Your task to perform on an android device: What's on my calendar today? Image 0: 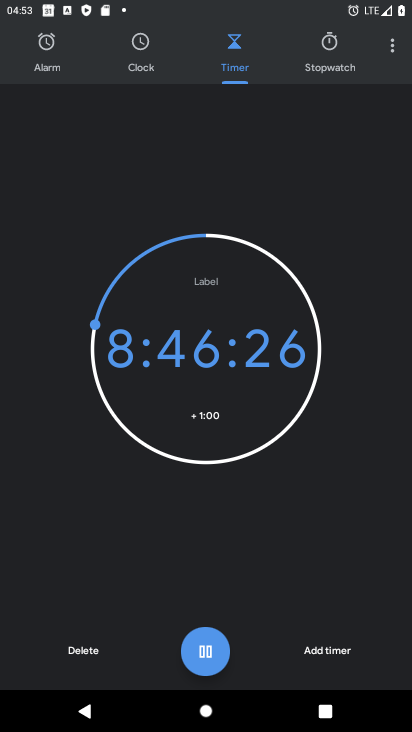
Step 0: press home button
Your task to perform on an android device: What's on my calendar today? Image 1: 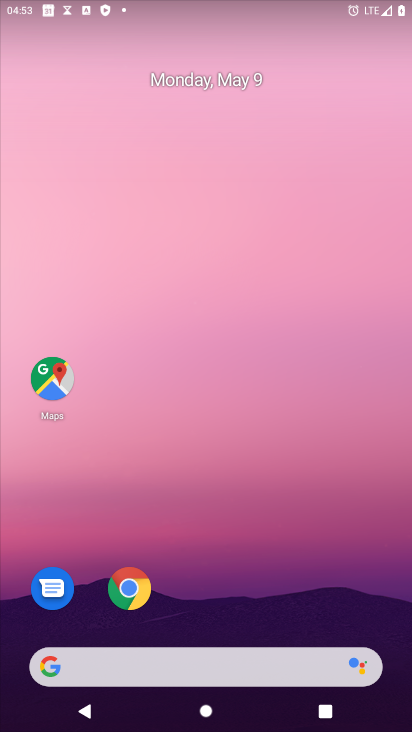
Step 1: drag from (249, 573) to (186, 86)
Your task to perform on an android device: What's on my calendar today? Image 2: 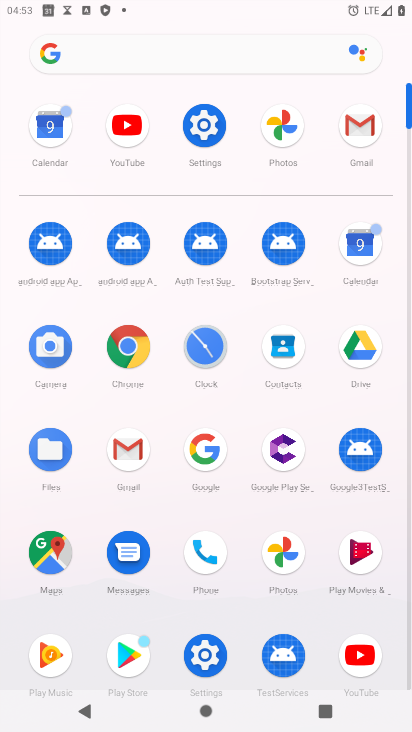
Step 2: click (364, 243)
Your task to perform on an android device: What's on my calendar today? Image 3: 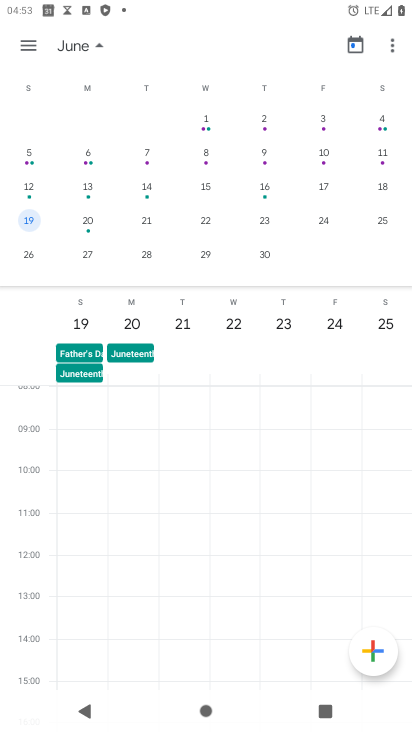
Step 3: drag from (121, 202) to (348, 129)
Your task to perform on an android device: What's on my calendar today? Image 4: 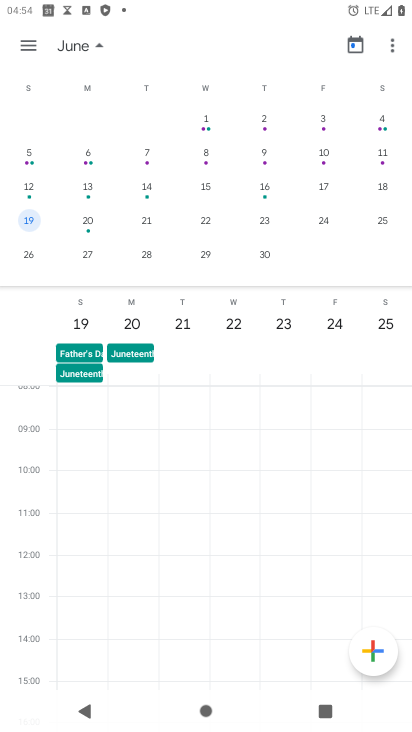
Step 4: drag from (77, 187) to (411, 131)
Your task to perform on an android device: What's on my calendar today? Image 5: 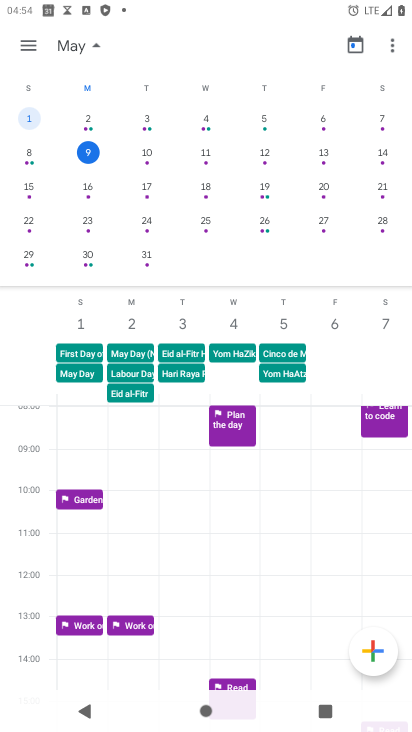
Step 5: click (86, 159)
Your task to perform on an android device: What's on my calendar today? Image 6: 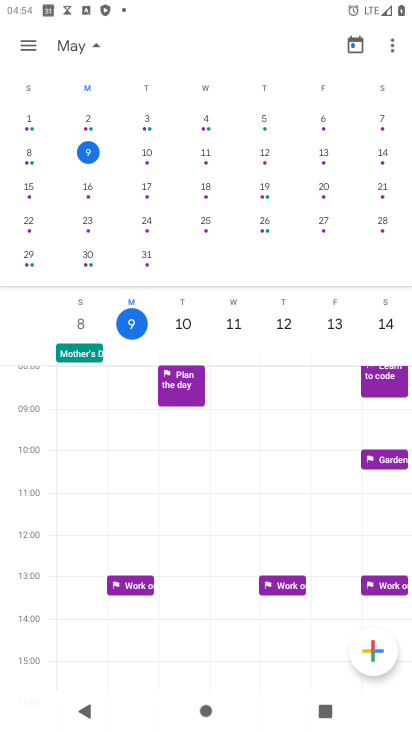
Step 6: task complete